Your task to perform on an android device: clear all cookies in the chrome app Image 0: 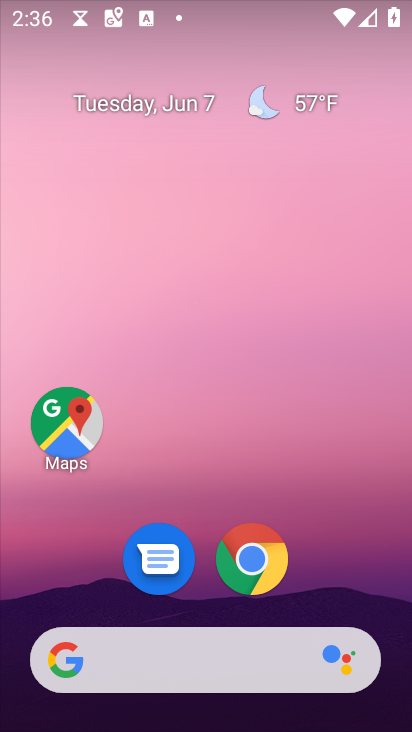
Step 0: click (255, 561)
Your task to perform on an android device: clear all cookies in the chrome app Image 1: 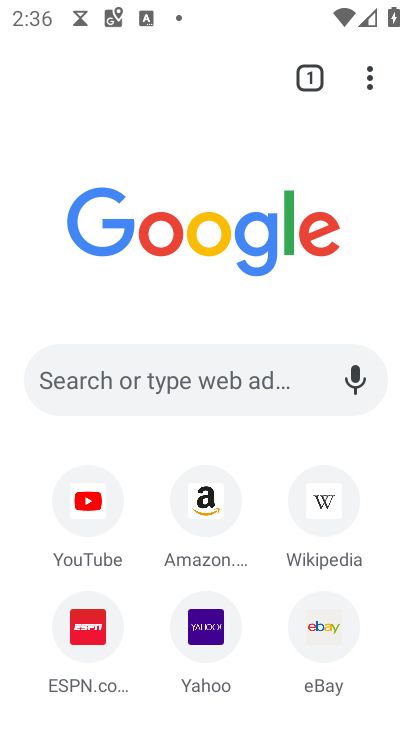
Step 1: click (375, 76)
Your task to perform on an android device: clear all cookies in the chrome app Image 2: 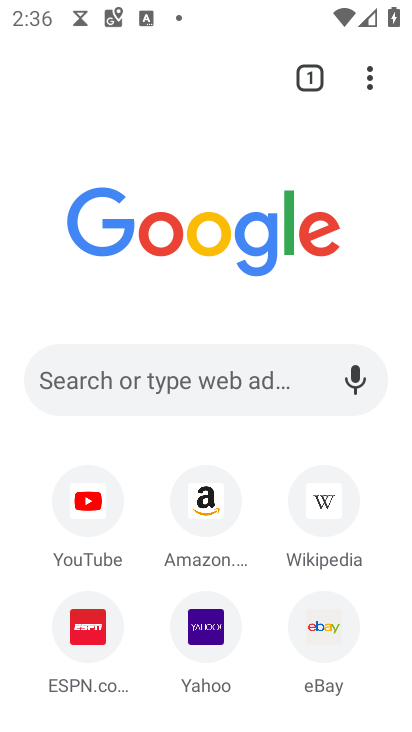
Step 2: click (369, 78)
Your task to perform on an android device: clear all cookies in the chrome app Image 3: 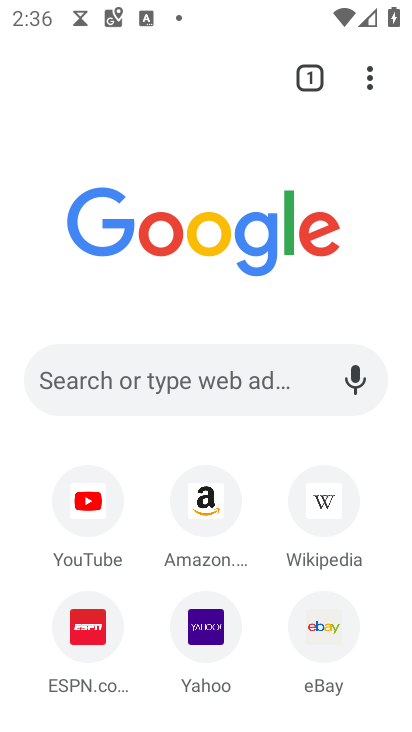
Step 3: click (369, 82)
Your task to perform on an android device: clear all cookies in the chrome app Image 4: 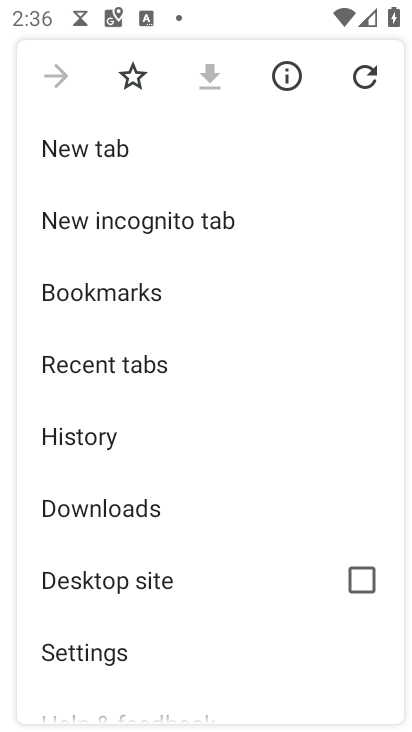
Step 4: drag from (104, 616) to (277, 167)
Your task to perform on an android device: clear all cookies in the chrome app Image 5: 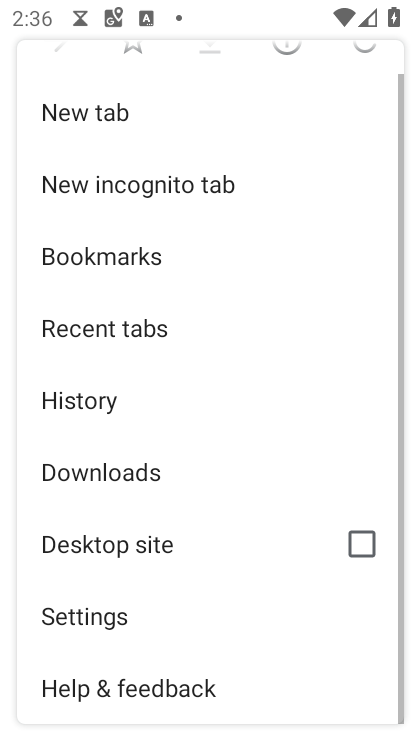
Step 5: click (117, 608)
Your task to perform on an android device: clear all cookies in the chrome app Image 6: 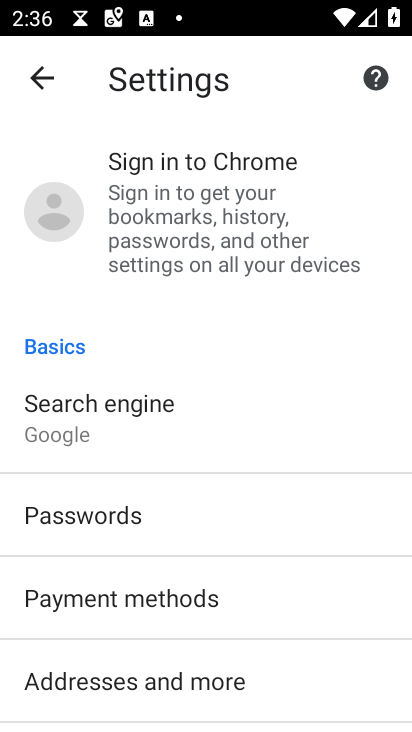
Step 6: task complete